Your task to perform on an android device: Show me productivity apps on the Play Store Image 0: 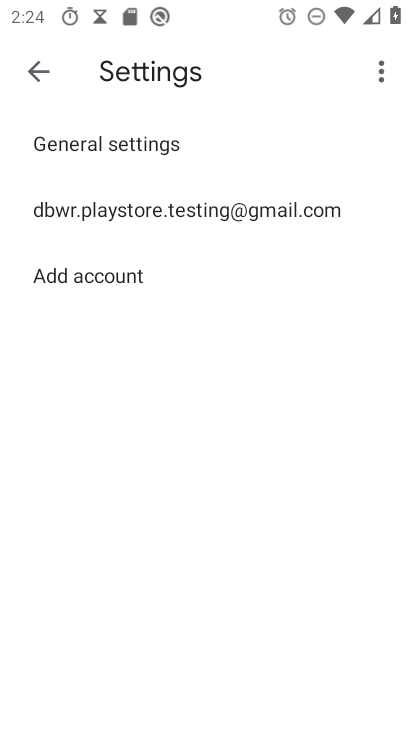
Step 0: press home button
Your task to perform on an android device: Show me productivity apps on the Play Store Image 1: 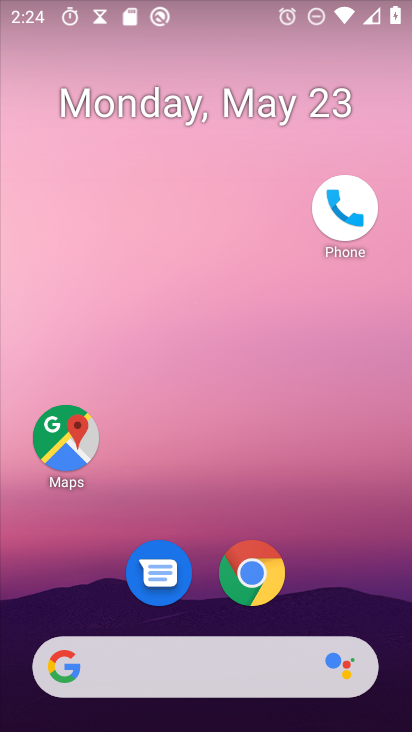
Step 1: drag from (181, 650) to (360, 158)
Your task to perform on an android device: Show me productivity apps on the Play Store Image 2: 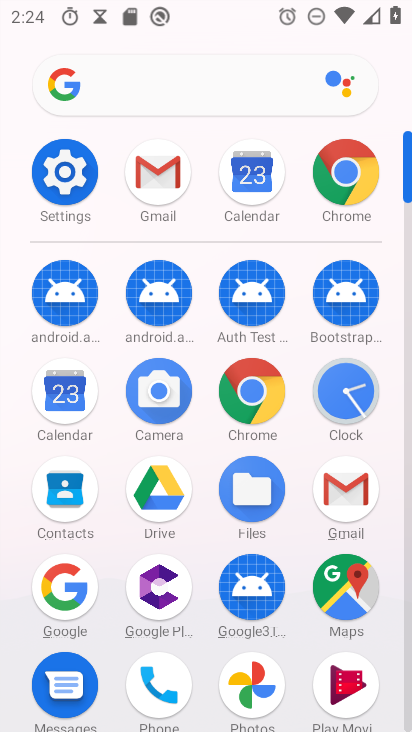
Step 2: drag from (141, 636) to (305, 176)
Your task to perform on an android device: Show me productivity apps on the Play Store Image 3: 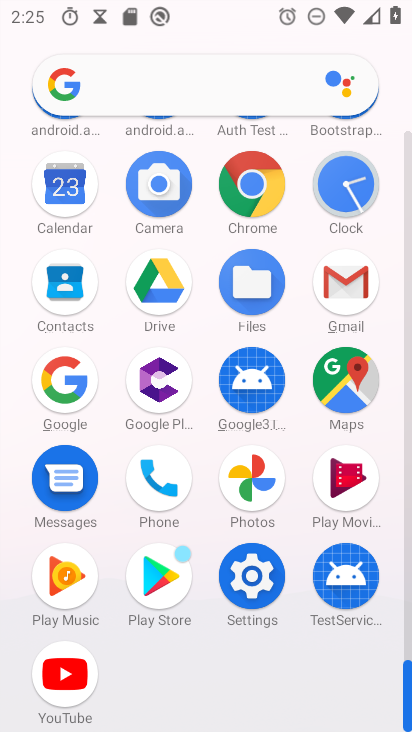
Step 3: click (174, 582)
Your task to perform on an android device: Show me productivity apps on the Play Store Image 4: 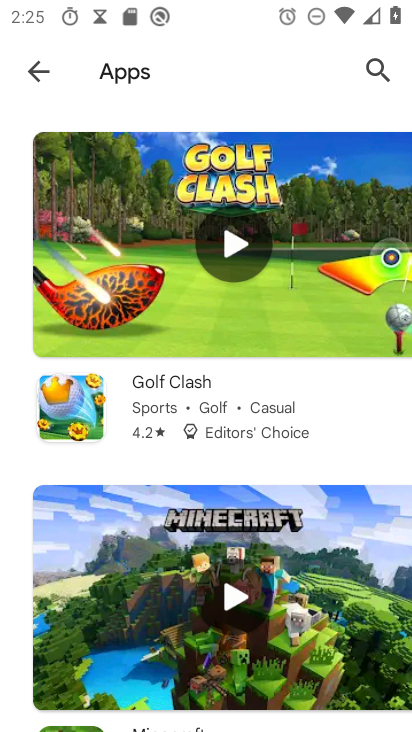
Step 4: click (38, 73)
Your task to perform on an android device: Show me productivity apps on the Play Store Image 5: 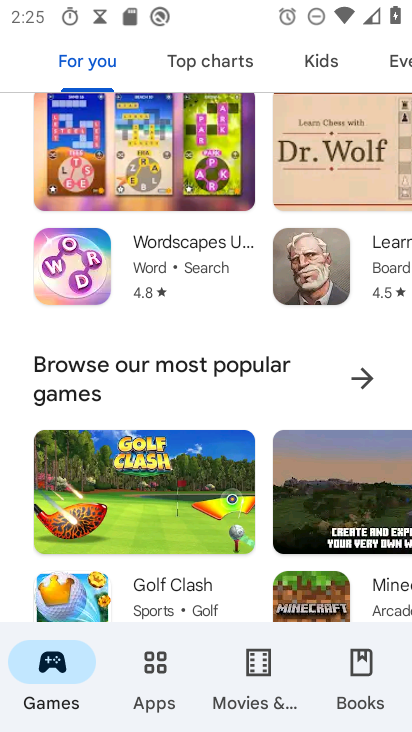
Step 5: click (151, 676)
Your task to perform on an android device: Show me productivity apps on the Play Store Image 6: 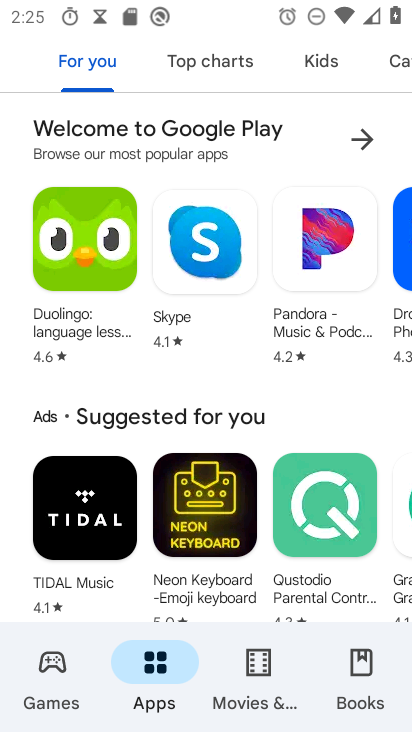
Step 6: click (396, 57)
Your task to perform on an android device: Show me productivity apps on the Play Store Image 7: 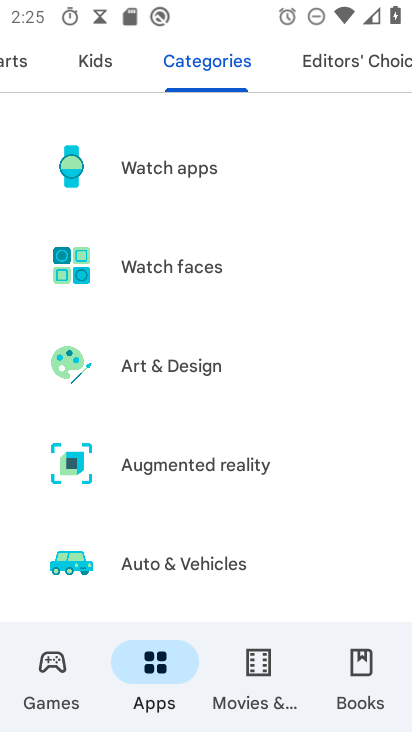
Step 7: drag from (284, 601) to (405, 40)
Your task to perform on an android device: Show me productivity apps on the Play Store Image 8: 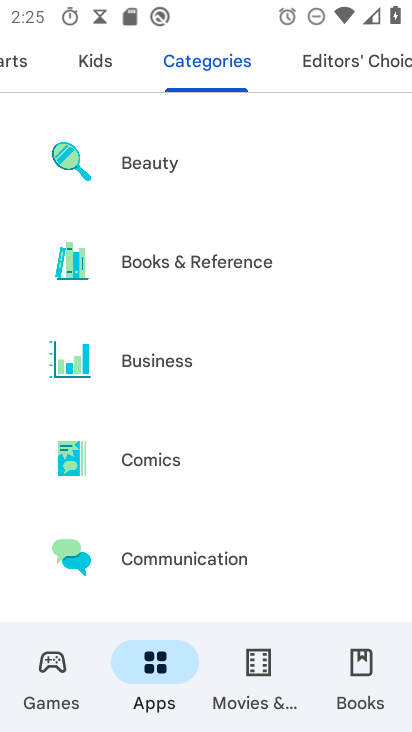
Step 8: drag from (263, 581) to (352, 142)
Your task to perform on an android device: Show me productivity apps on the Play Store Image 9: 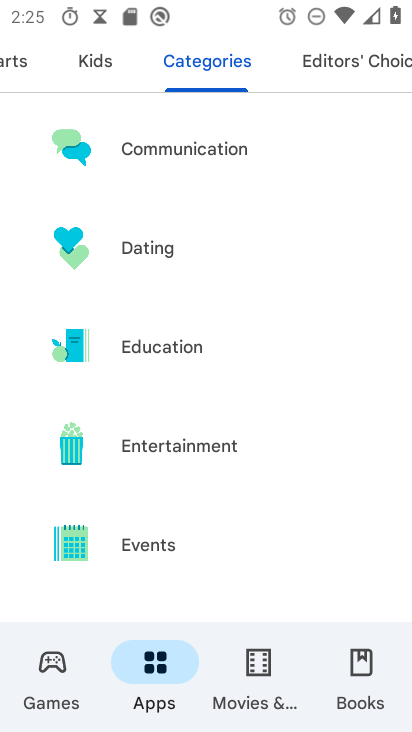
Step 9: drag from (257, 568) to (404, 122)
Your task to perform on an android device: Show me productivity apps on the Play Store Image 10: 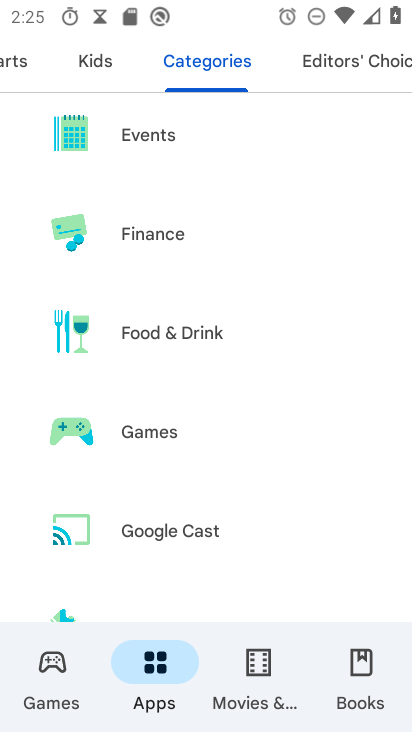
Step 10: drag from (229, 597) to (405, 92)
Your task to perform on an android device: Show me productivity apps on the Play Store Image 11: 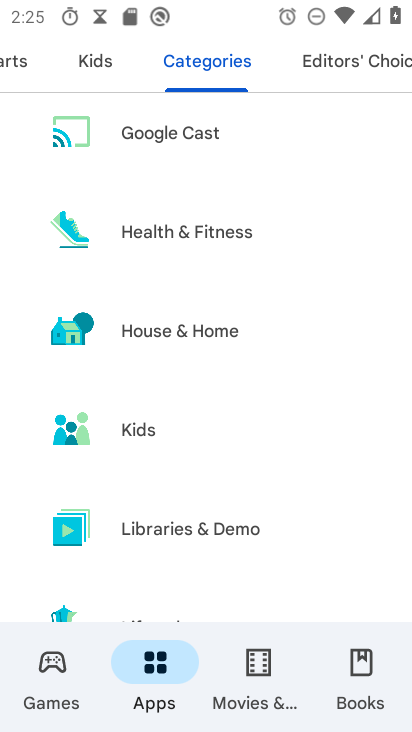
Step 11: drag from (271, 598) to (387, 89)
Your task to perform on an android device: Show me productivity apps on the Play Store Image 12: 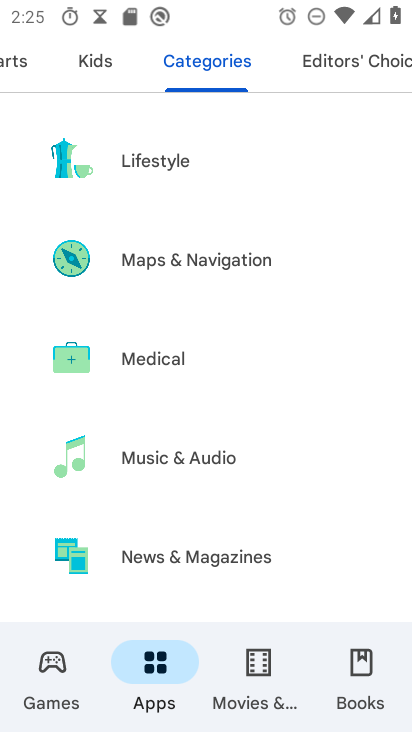
Step 12: drag from (252, 600) to (365, 143)
Your task to perform on an android device: Show me productivity apps on the Play Store Image 13: 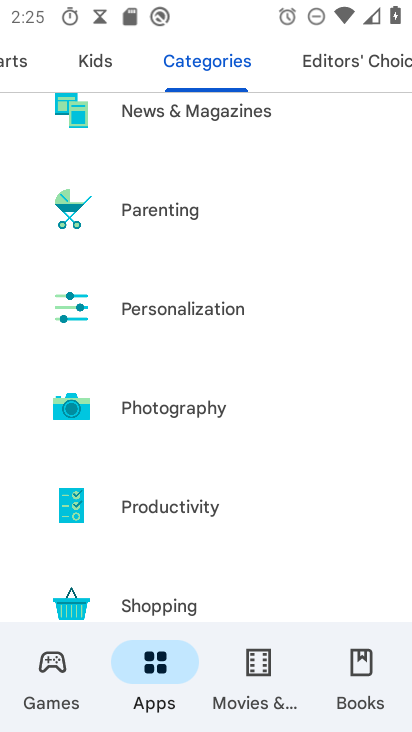
Step 13: click (189, 519)
Your task to perform on an android device: Show me productivity apps on the Play Store Image 14: 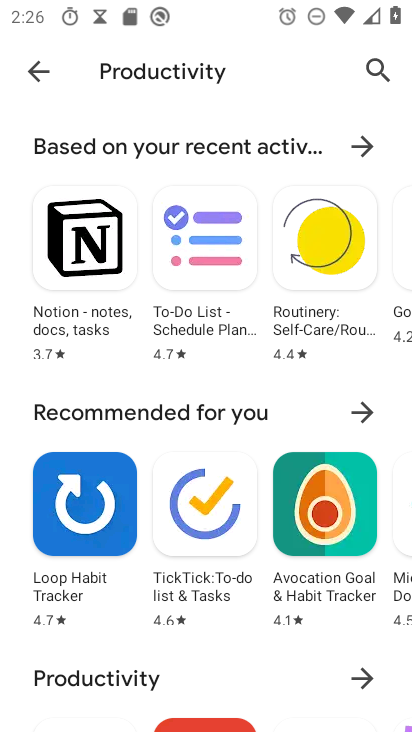
Step 14: task complete